Your task to perform on an android device: Open Google Chrome Image 0: 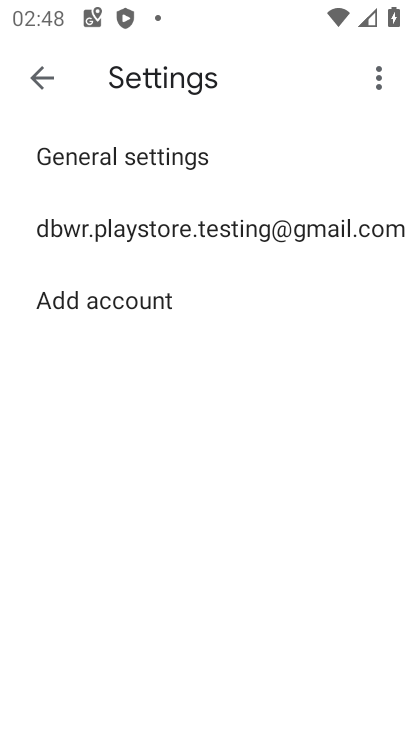
Step 0: press home button
Your task to perform on an android device: Open Google Chrome Image 1: 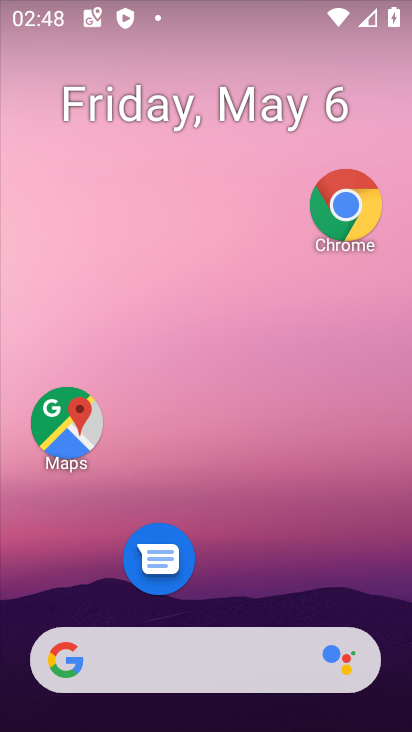
Step 1: drag from (203, 647) to (332, 78)
Your task to perform on an android device: Open Google Chrome Image 2: 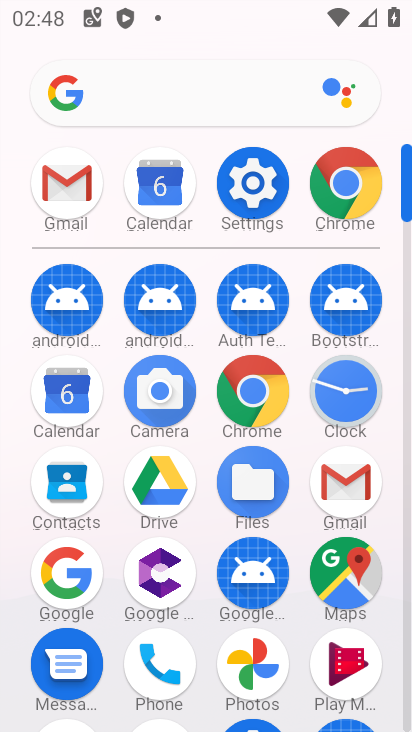
Step 2: click (343, 205)
Your task to perform on an android device: Open Google Chrome Image 3: 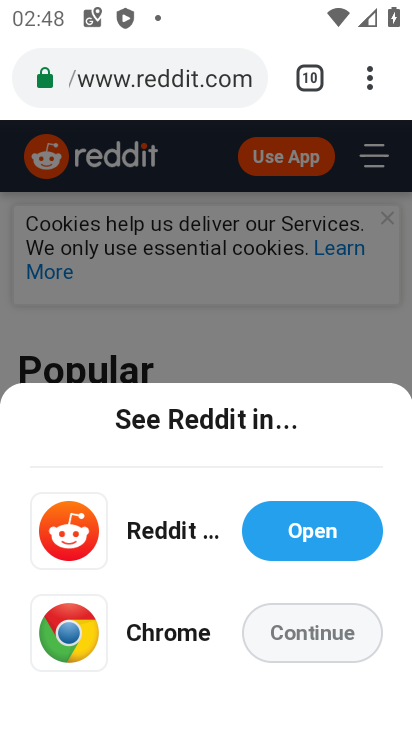
Step 3: task complete